Your task to perform on an android device: Add "macbook pro" to the cart on walmart Image 0: 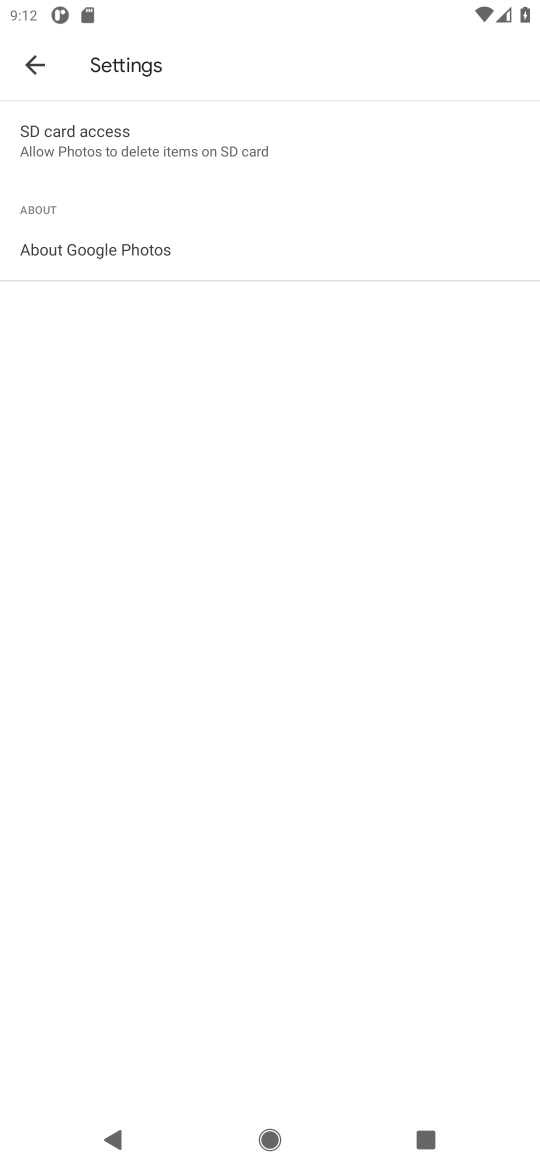
Step 0: press home button
Your task to perform on an android device: Add "macbook pro" to the cart on walmart Image 1: 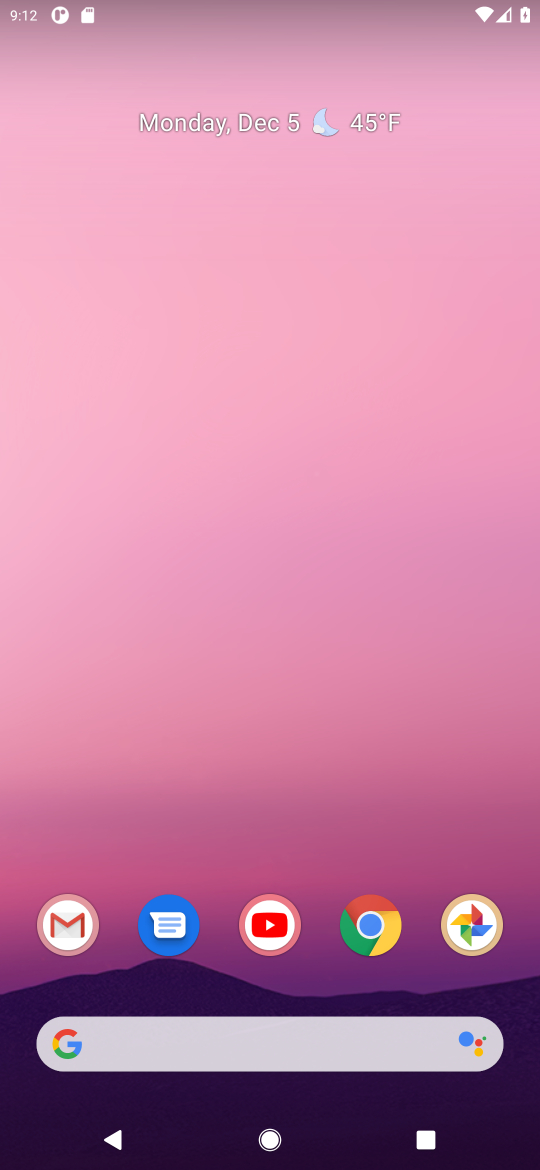
Step 1: click (362, 932)
Your task to perform on an android device: Add "macbook pro" to the cart on walmart Image 2: 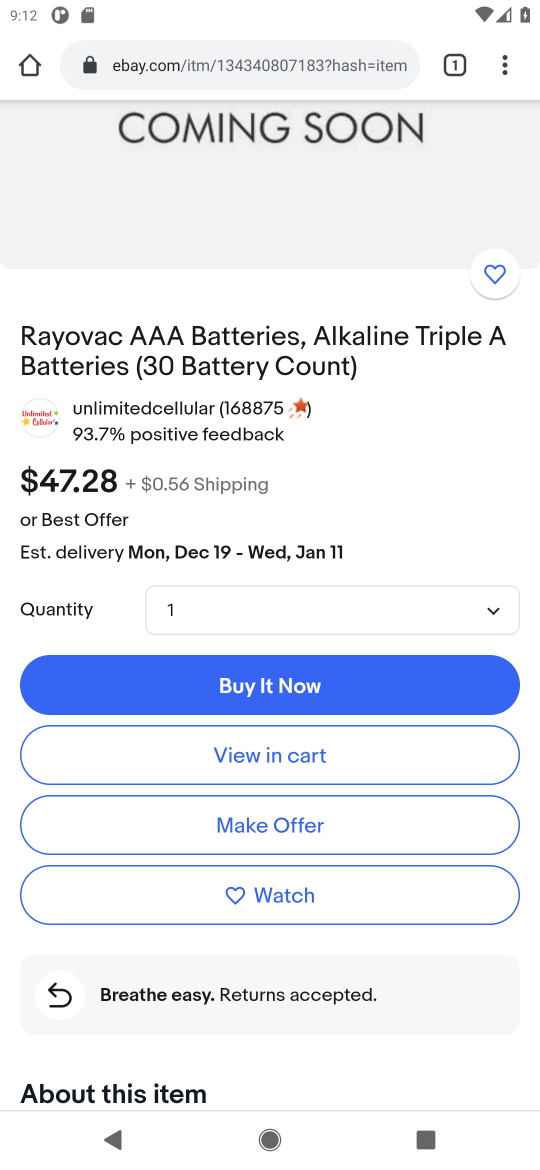
Step 2: click (228, 64)
Your task to perform on an android device: Add "macbook pro" to the cart on walmart Image 3: 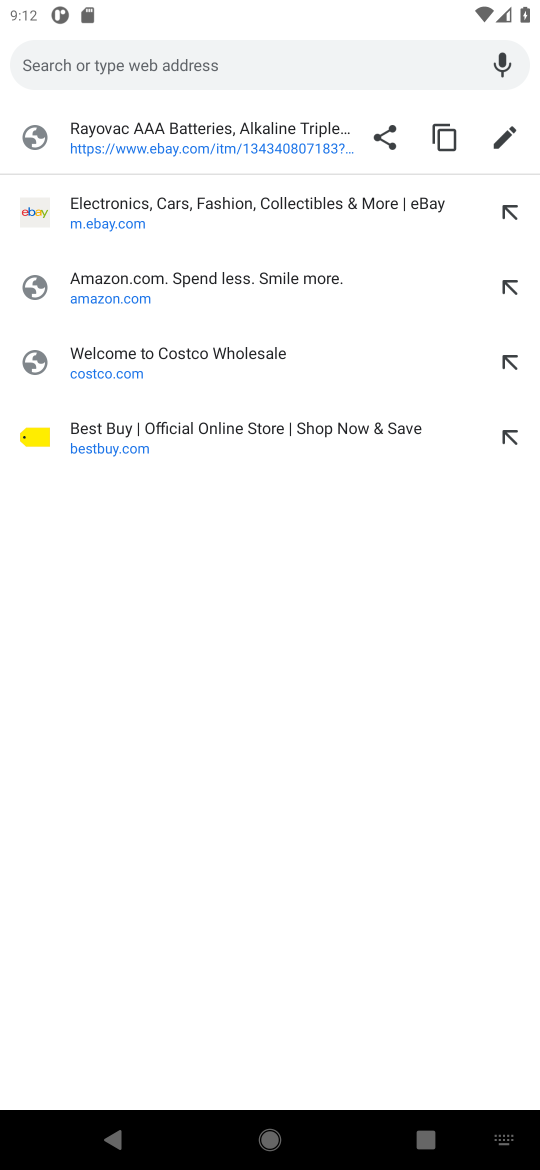
Step 3: type "walmart.com"
Your task to perform on an android device: Add "macbook pro" to the cart on walmart Image 4: 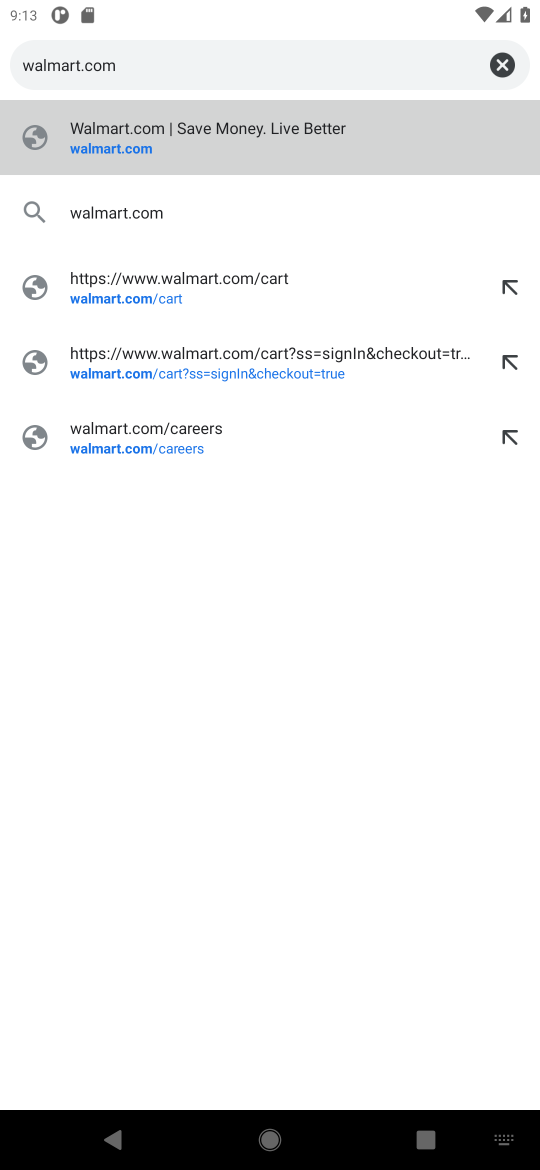
Step 4: click (124, 146)
Your task to perform on an android device: Add "macbook pro" to the cart on walmart Image 5: 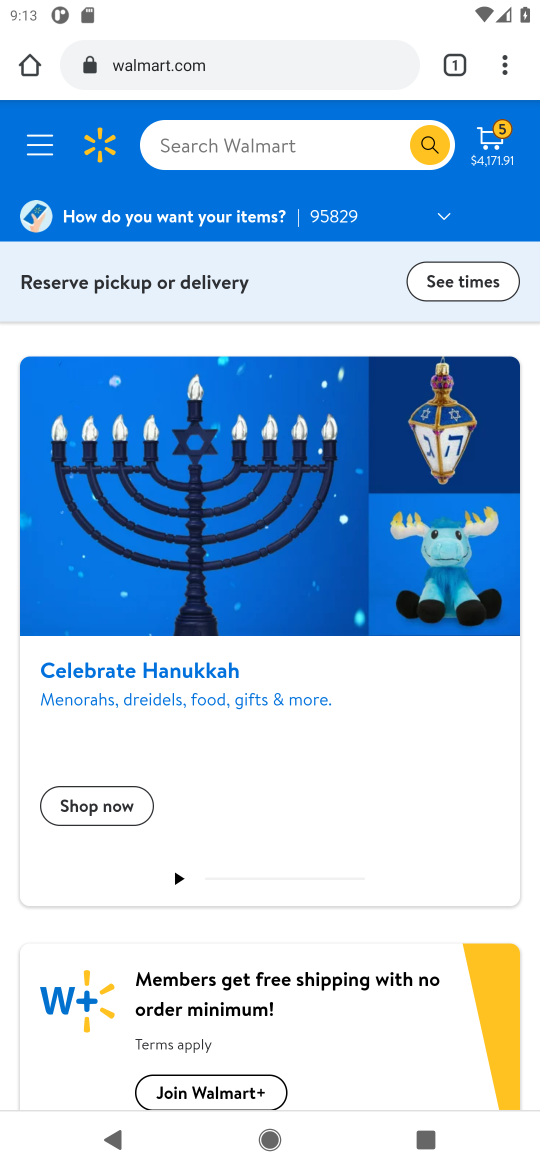
Step 5: click (218, 142)
Your task to perform on an android device: Add "macbook pro" to the cart on walmart Image 6: 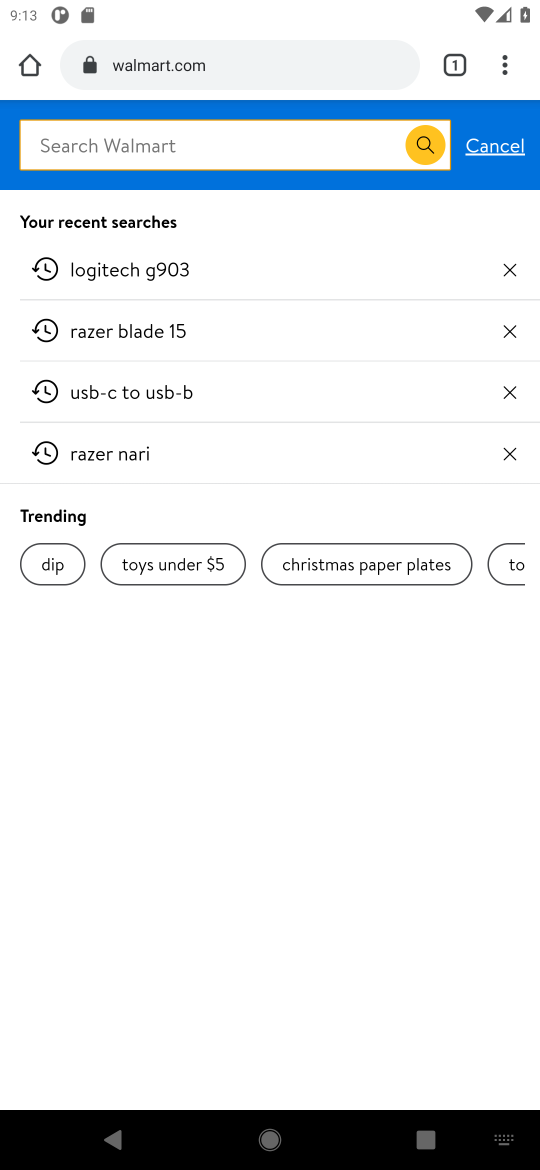
Step 6: type "macbook pro"
Your task to perform on an android device: Add "macbook pro" to the cart on walmart Image 7: 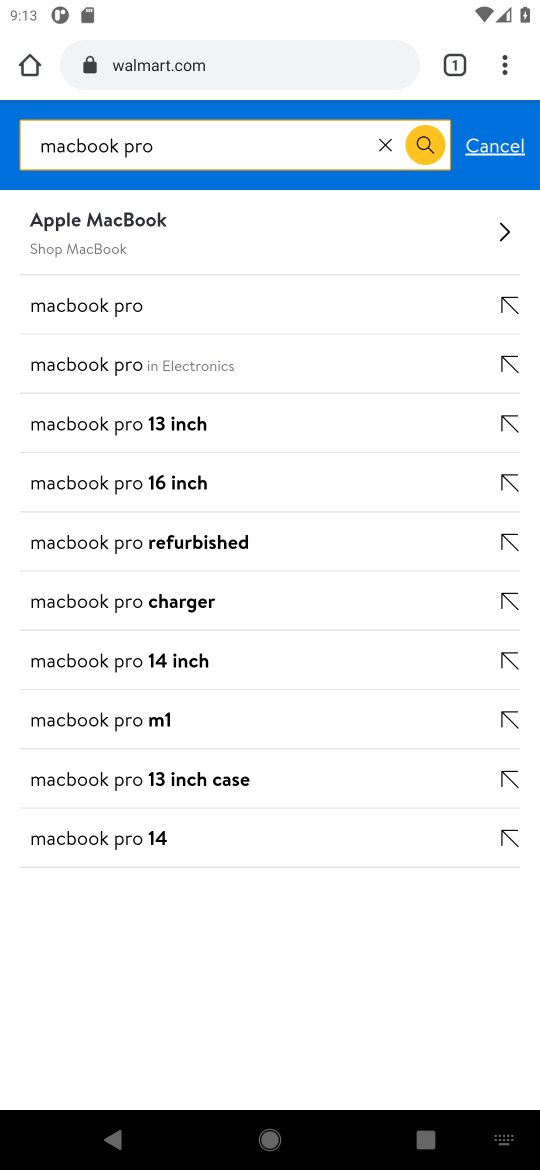
Step 7: click (95, 317)
Your task to perform on an android device: Add "macbook pro" to the cart on walmart Image 8: 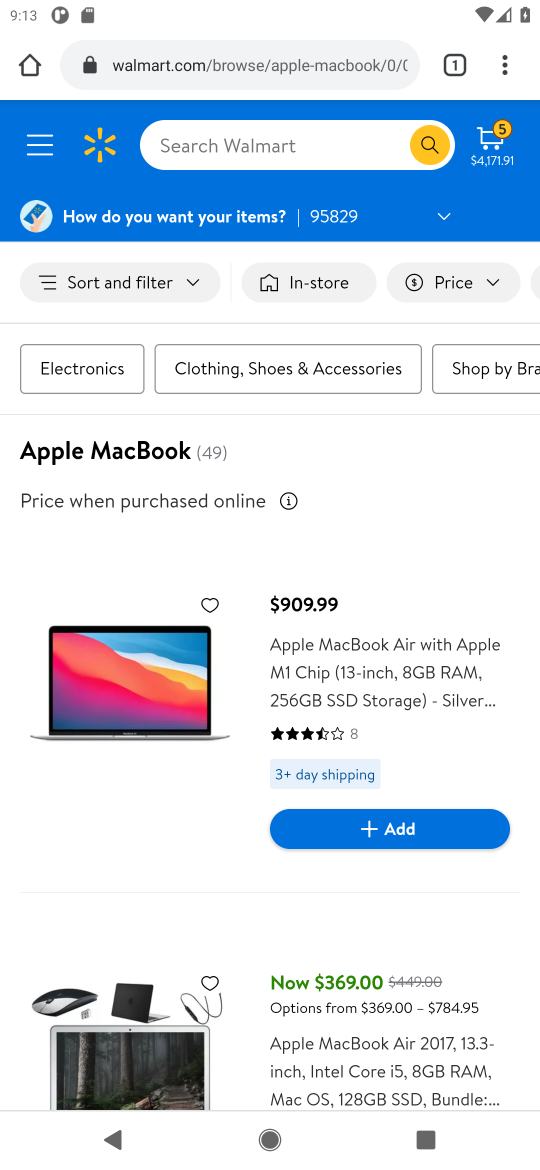
Step 8: drag from (281, 874) to (300, 496)
Your task to perform on an android device: Add "macbook pro" to the cart on walmart Image 9: 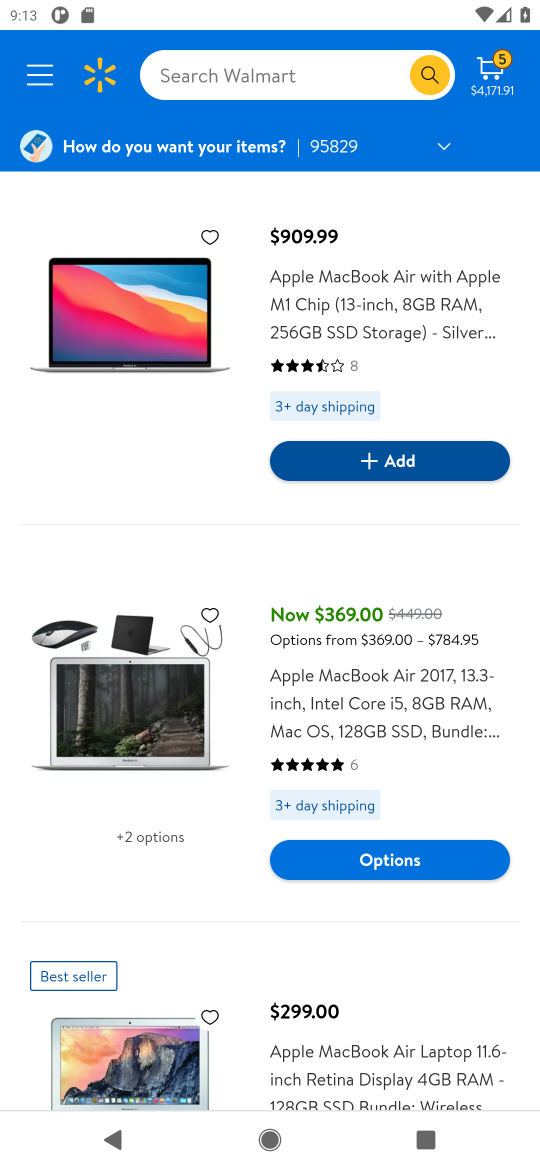
Step 9: drag from (281, 940) to (288, 441)
Your task to perform on an android device: Add "macbook pro" to the cart on walmart Image 10: 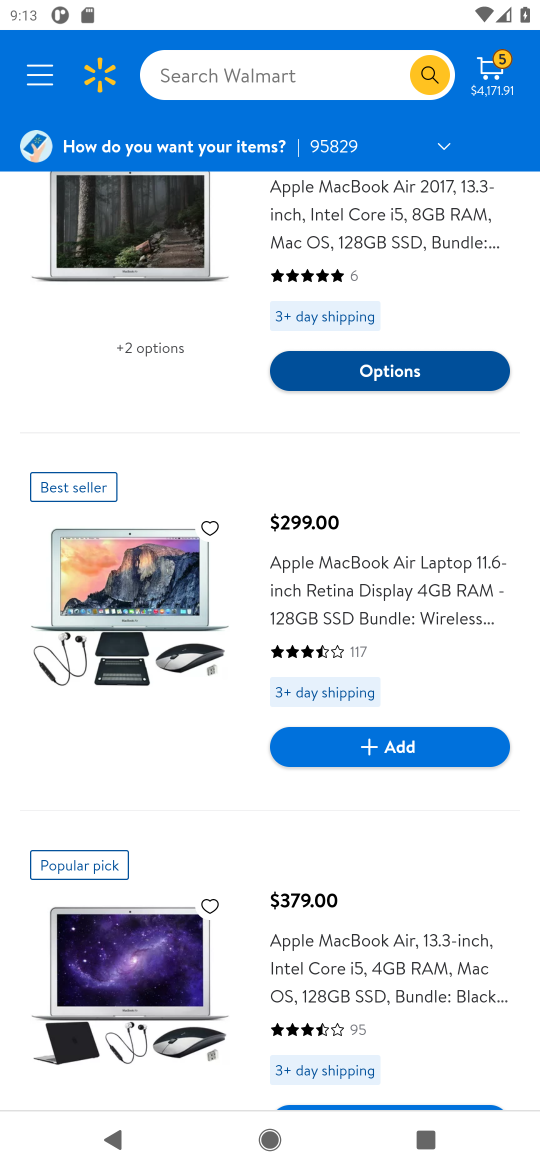
Step 10: drag from (240, 876) to (273, 437)
Your task to perform on an android device: Add "macbook pro" to the cart on walmart Image 11: 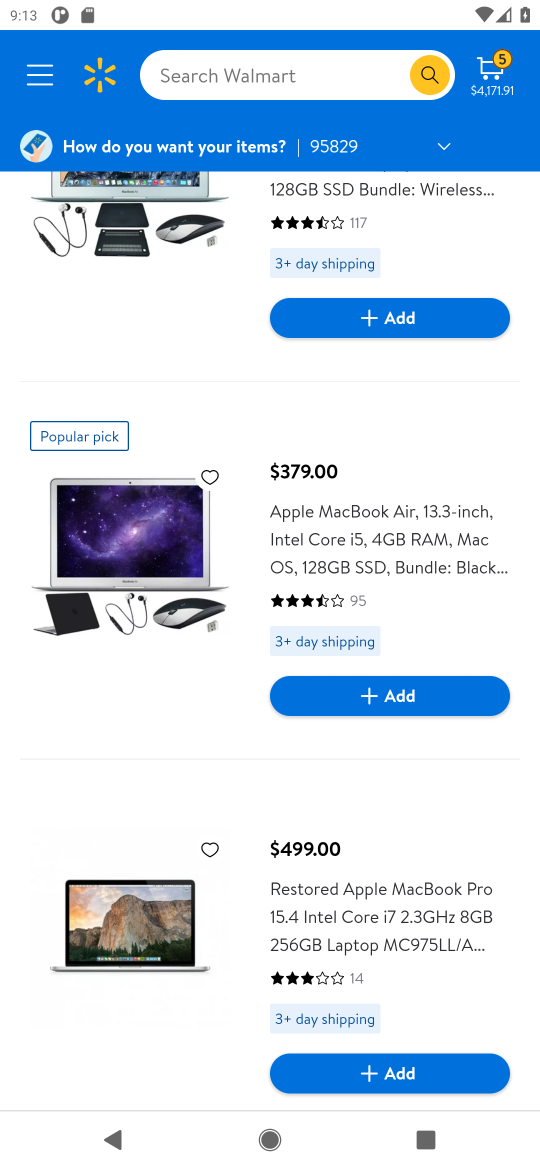
Step 11: drag from (217, 951) to (232, 614)
Your task to perform on an android device: Add "macbook pro" to the cart on walmart Image 12: 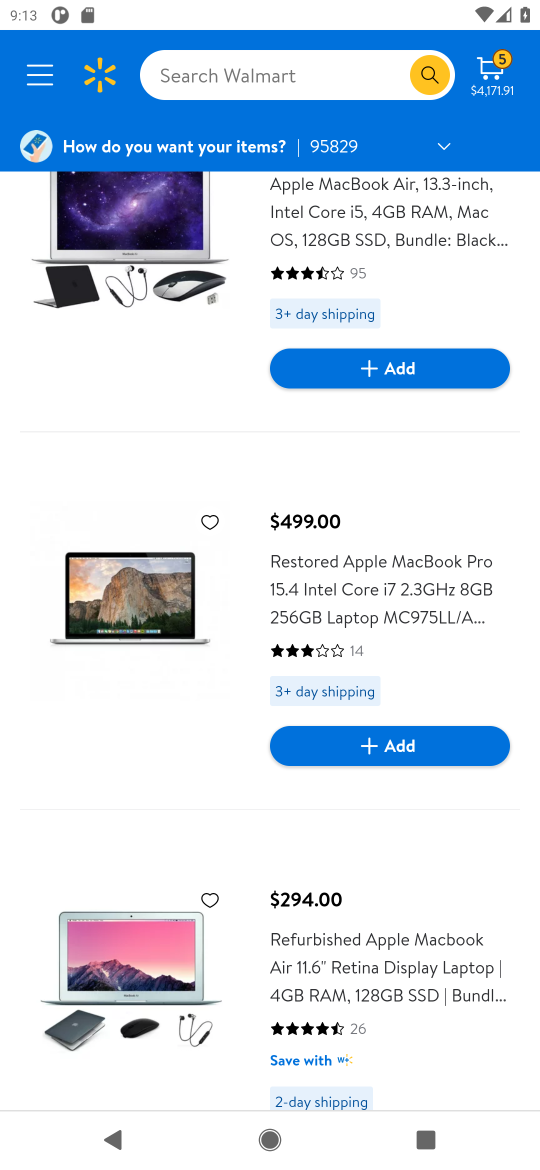
Step 12: click (410, 603)
Your task to perform on an android device: Add "macbook pro" to the cart on walmart Image 13: 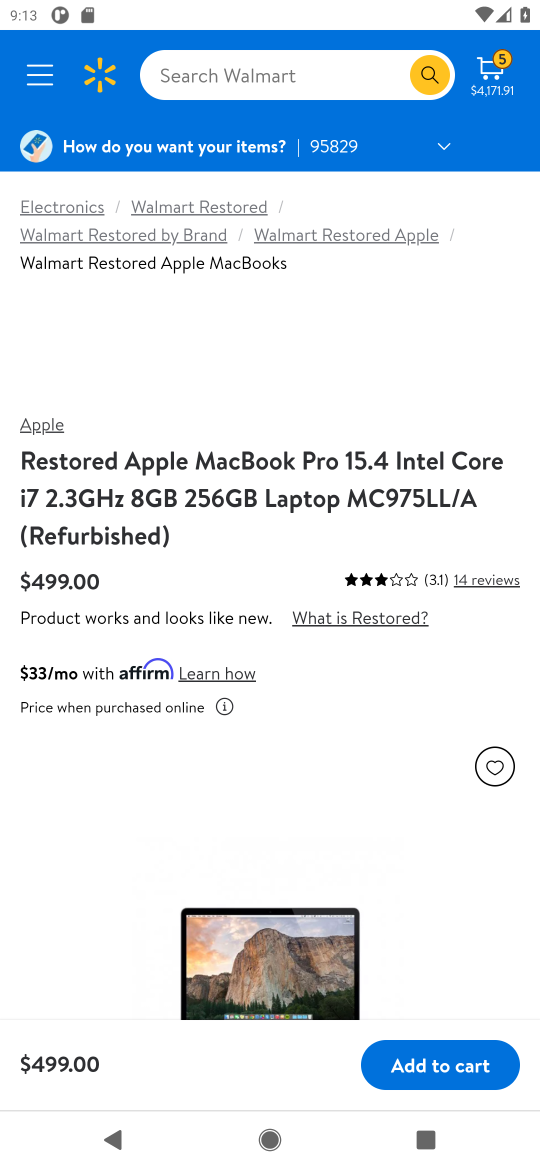
Step 13: click (421, 1063)
Your task to perform on an android device: Add "macbook pro" to the cart on walmart Image 14: 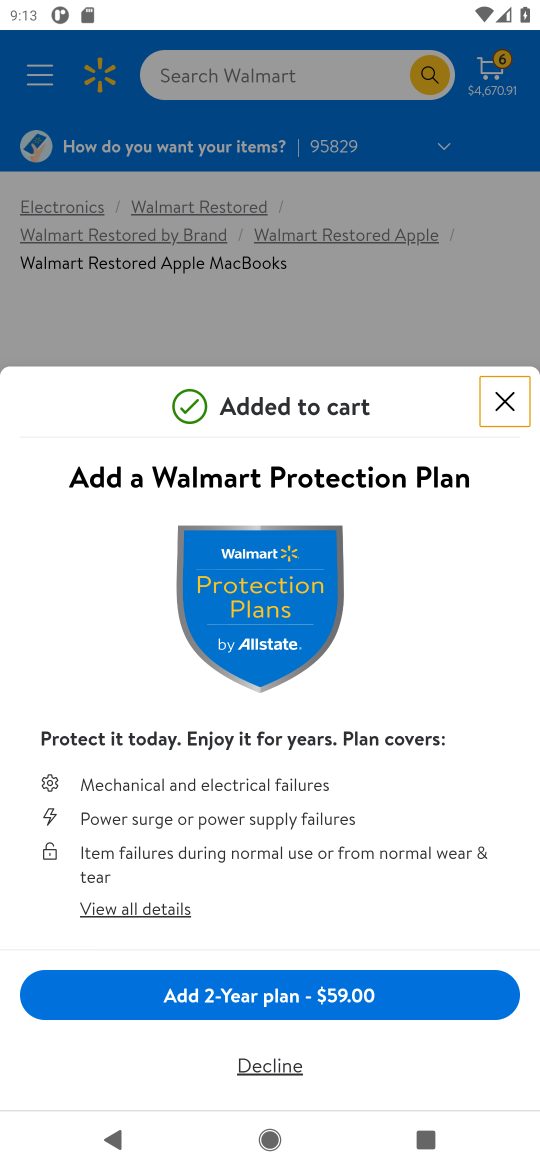
Step 14: task complete